Your task to perform on an android device: Check the news Image 0: 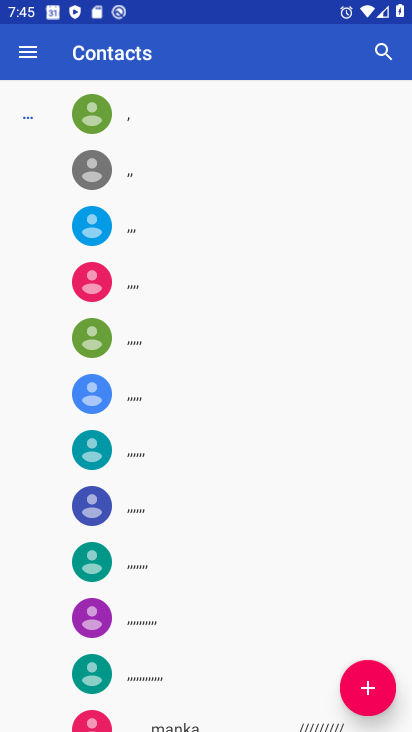
Step 0: press home button
Your task to perform on an android device: Check the news Image 1: 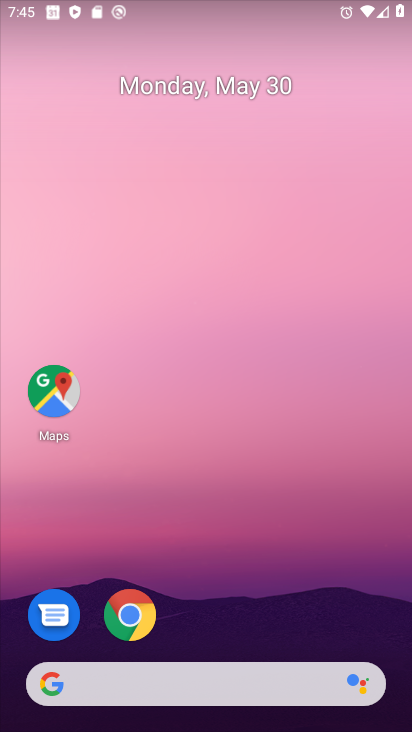
Step 1: drag from (299, 509) to (250, 69)
Your task to perform on an android device: Check the news Image 2: 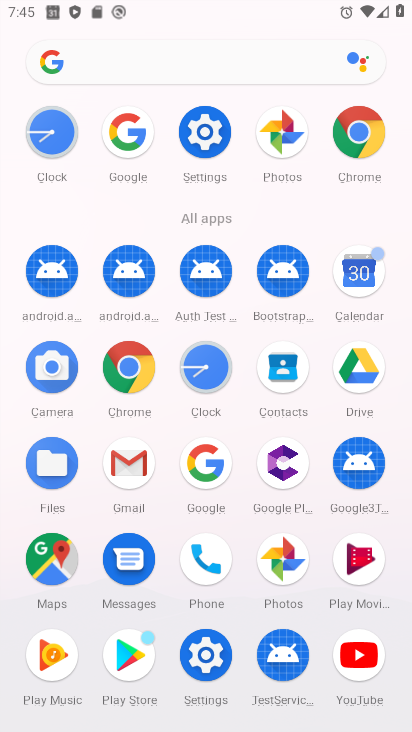
Step 2: click (366, 146)
Your task to perform on an android device: Check the news Image 3: 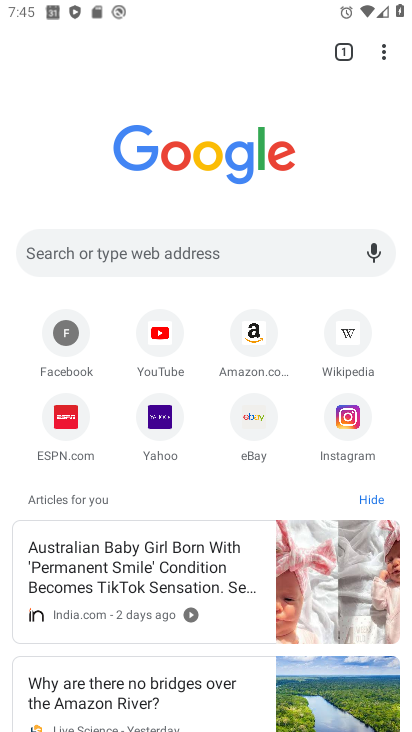
Step 3: task complete